Your task to perform on an android device: toggle notifications settings in the gmail app Image 0: 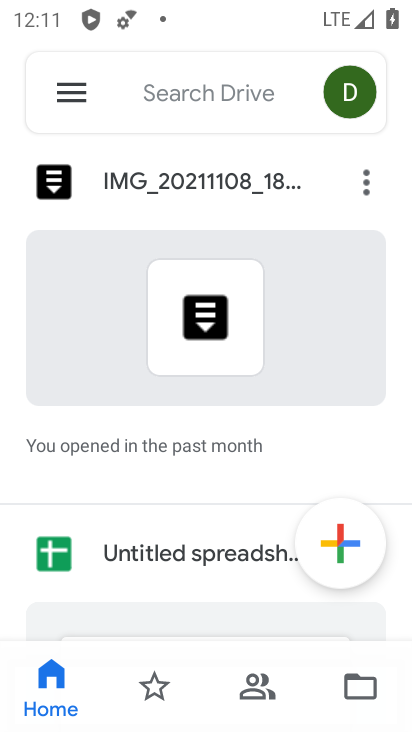
Step 0: press home button
Your task to perform on an android device: toggle notifications settings in the gmail app Image 1: 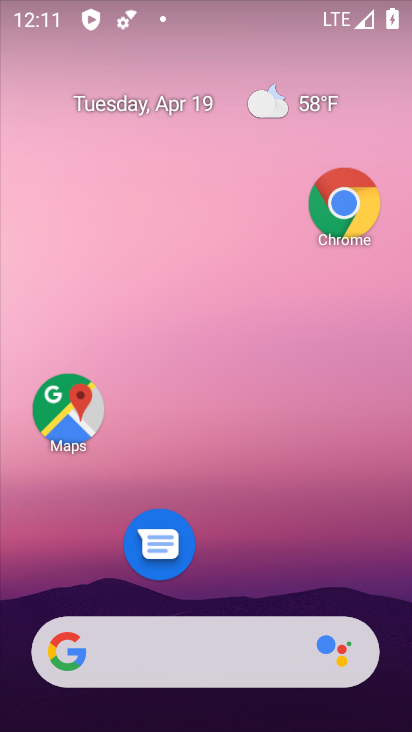
Step 1: drag from (260, 554) to (230, 29)
Your task to perform on an android device: toggle notifications settings in the gmail app Image 2: 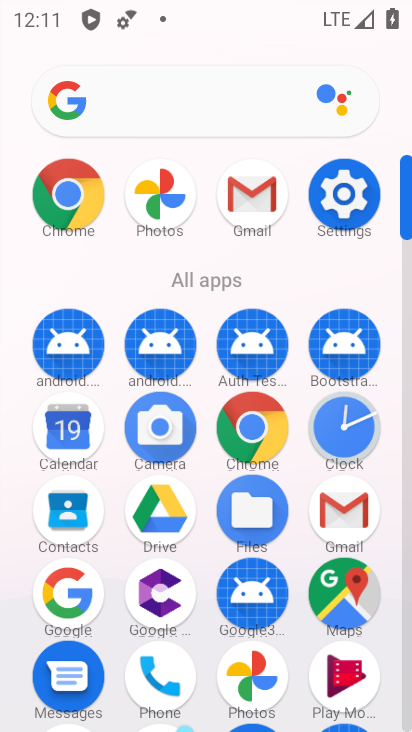
Step 2: click (247, 207)
Your task to perform on an android device: toggle notifications settings in the gmail app Image 3: 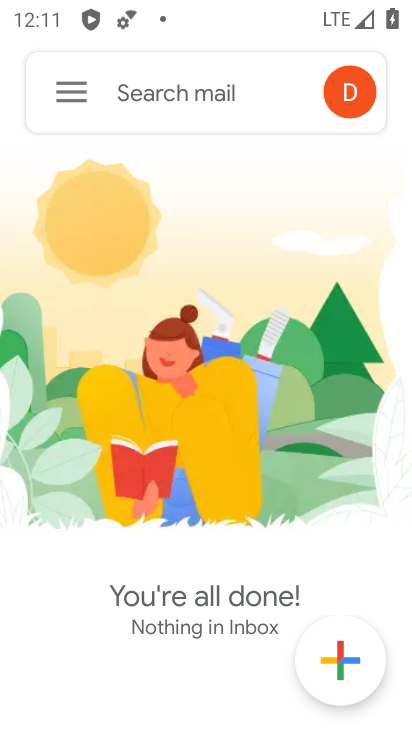
Step 3: click (74, 91)
Your task to perform on an android device: toggle notifications settings in the gmail app Image 4: 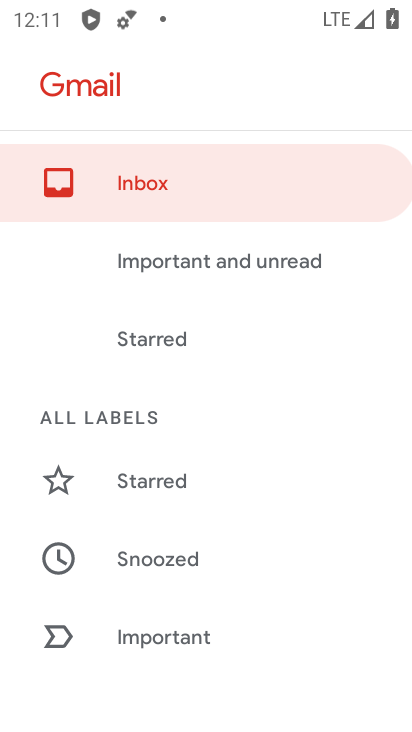
Step 4: drag from (212, 597) to (259, 204)
Your task to perform on an android device: toggle notifications settings in the gmail app Image 5: 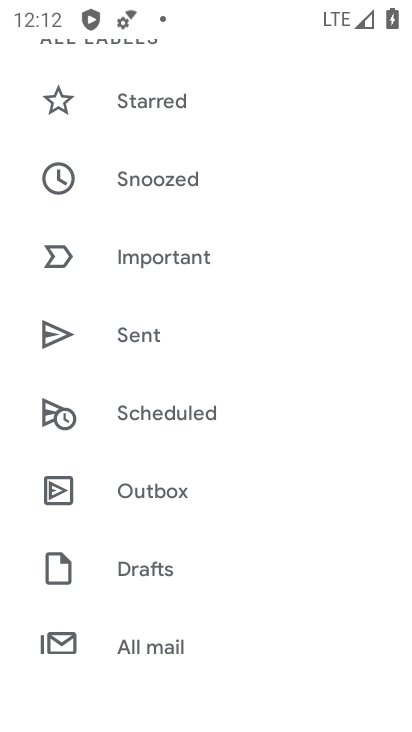
Step 5: drag from (269, 585) to (268, 213)
Your task to perform on an android device: toggle notifications settings in the gmail app Image 6: 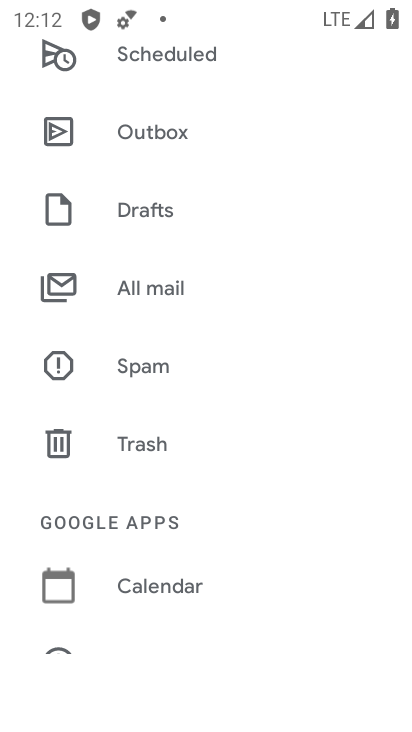
Step 6: drag from (225, 548) to (246, 145)
Your task to perform on an android device: toggle notifications settings in the gmail app Image 7: 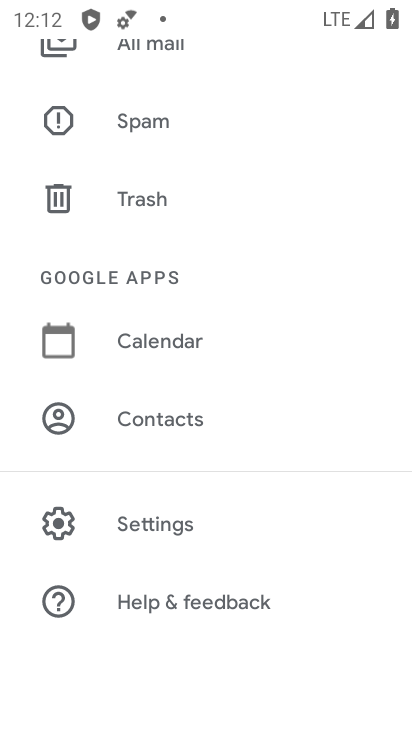
Step 7: click (190, 526)
Your task to perform on an android device: toggle notifications settings in the gmail app Image 8: 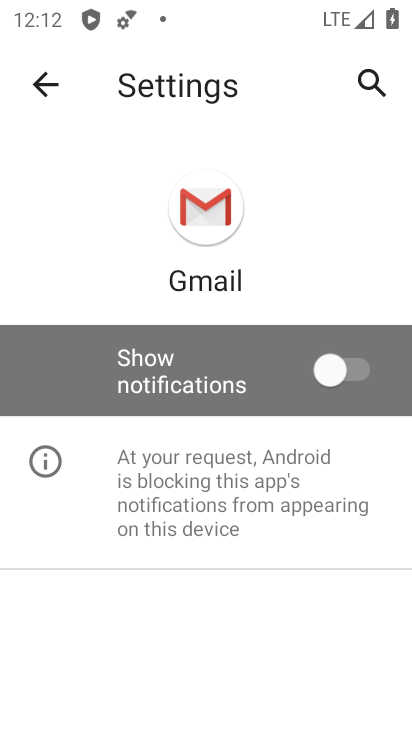
Step 8: click (349, 367)
Your task to perform on an android device: toggle notifications settings in the gmail app Image 9: 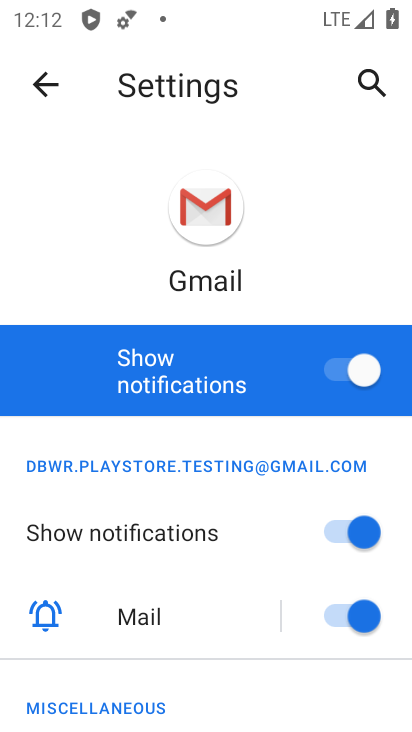
Step 9: task complete